Your task to perform on an android device: find photos in the google photos app Image 0: 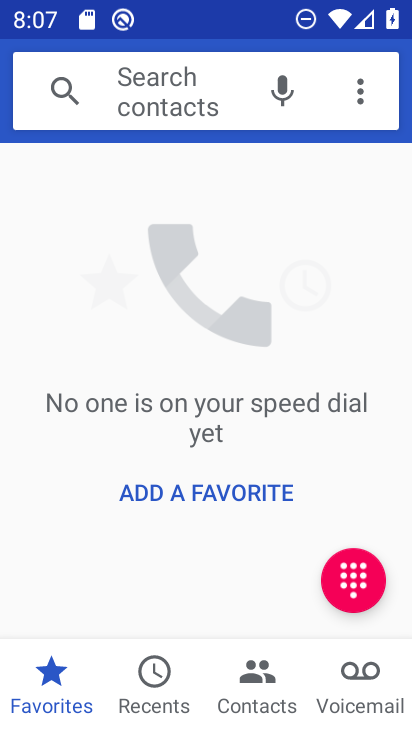
Step 0: press back button
Your task to perform on an android device: find photos in the google photos app Image 1: 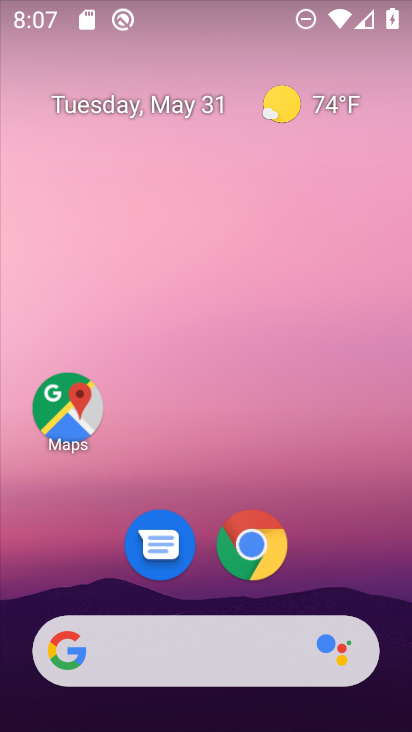
Step 1: drag from (330, 567) to (207, 22)
Your task to perform on an android device: find photos in the google photos app Image 2: 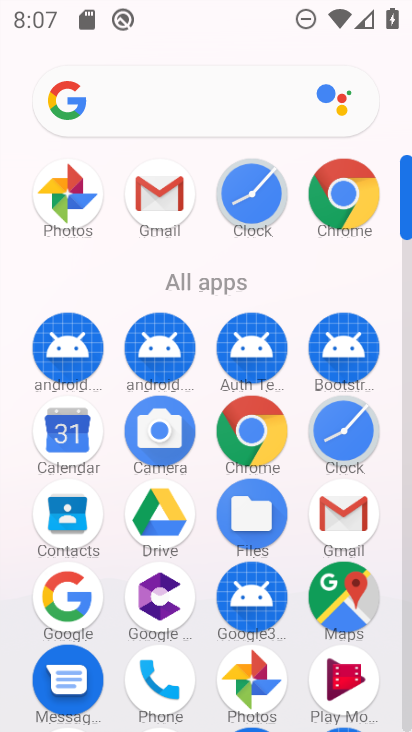
Step 2: click (250, 674)
Your task to perform on an android device: find photos in the google photos app Image 3: 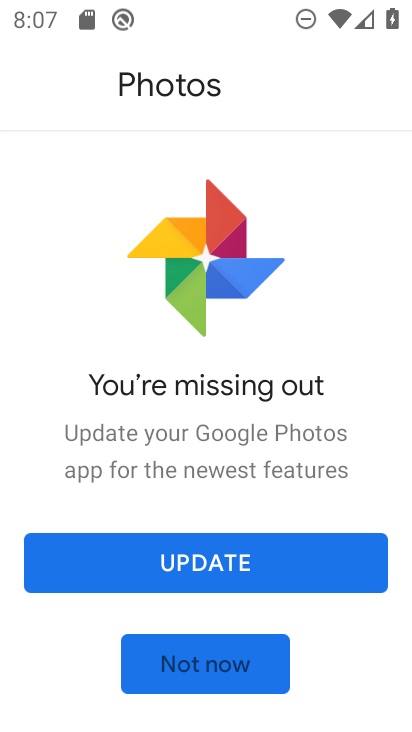
Step 3: click (237, 557)
Your task to perform on an android device: find photos in the google photos app Image 4: 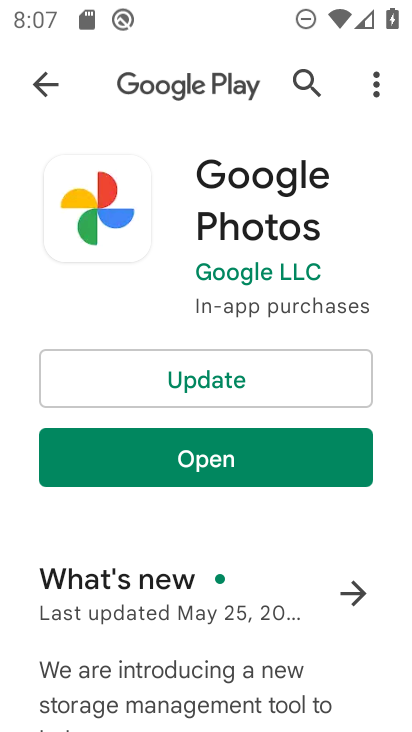
Step 4: click (227, 385)
Your task to perform on an android device: find photos in the google photos app Image 5: 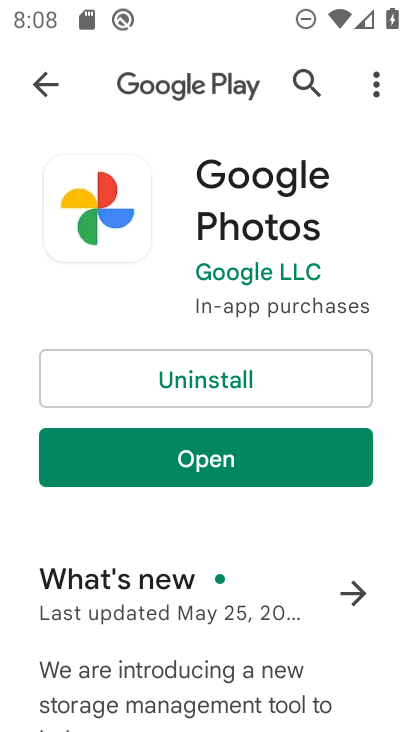
Step 5: click (245, 450)
Your task to perform on an android device: find photos in the google photos app Image 6: 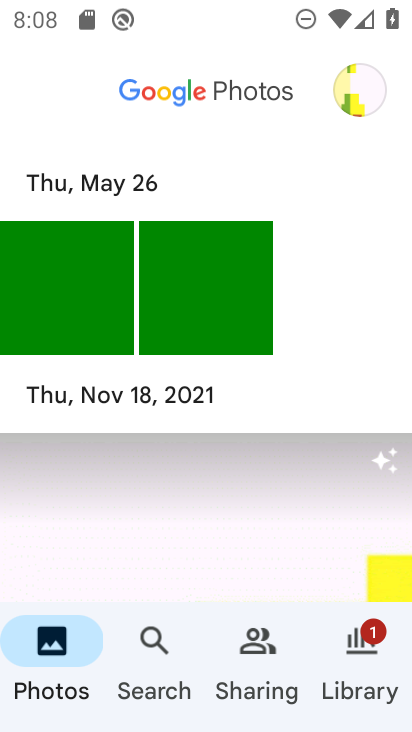
Step 6: task complete